Your task to perform on an android device: change the clock display to show seconds Image 0: 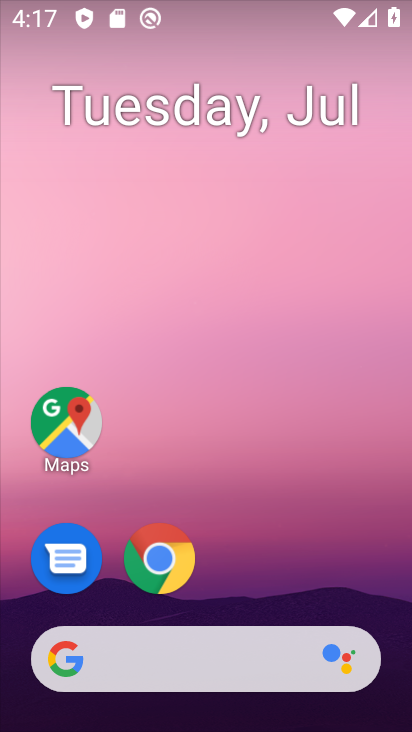
Step 0: drag from (261, 429) to (273, 251)
Your task to perform on an android device: change the clock display to show seconds Image 1: 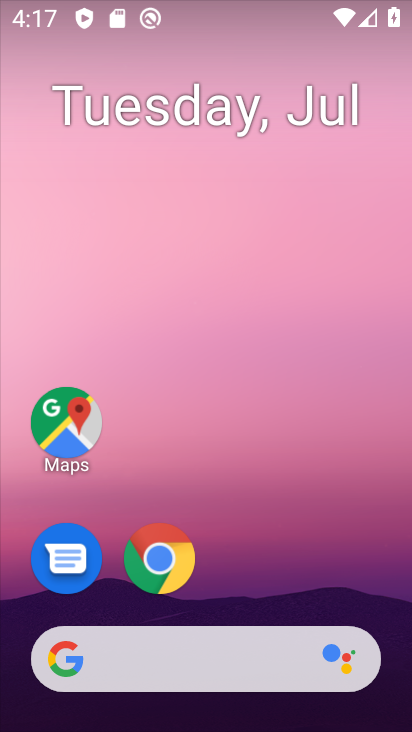
Step 1: drag from (230, 610) to (231, 281)
Your task to perform on an android device: change the clock display to show seconds Image 2: 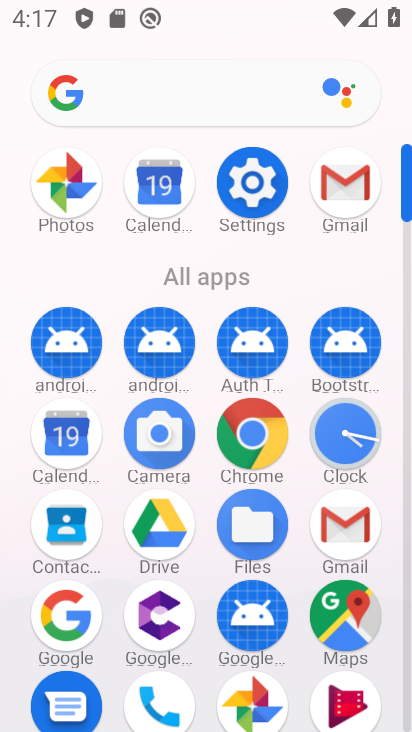
Step 2: click (331, 447)
Your task to perform on an android device: change the clock display to show seconds Image 3: 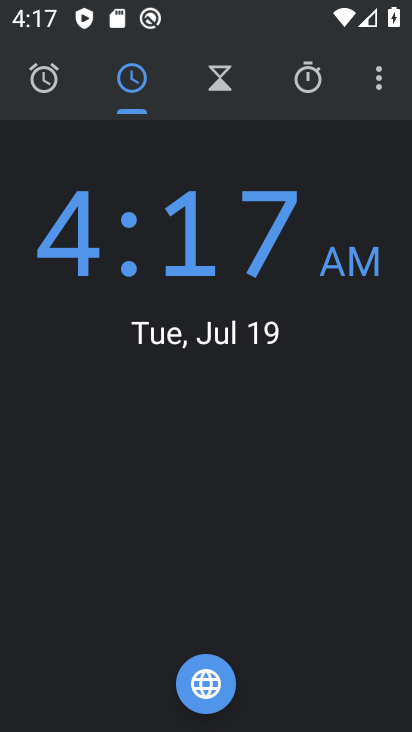
Step 3: click (380, 100)
Your task to perform on an android device: change the clock display to show seconds Image 4: 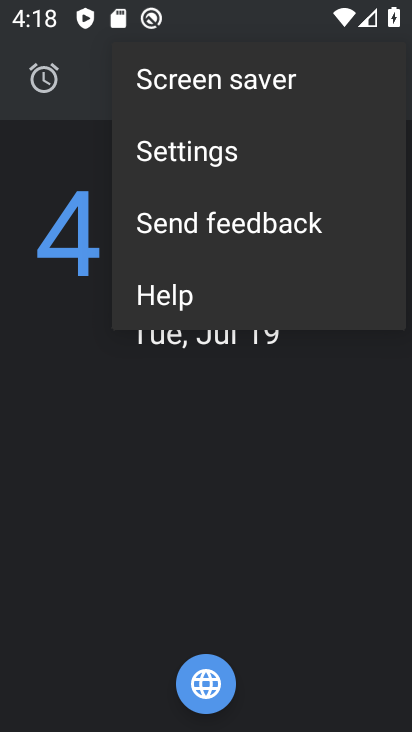
Step 4: click (212, 165)
Your task to perform on an android device: change the clock display to show seconds Image 5: 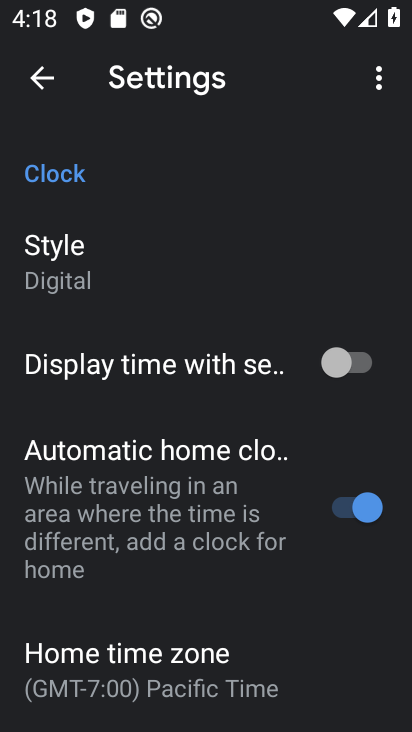
Step 5: click (199, 365)
Your task to perform on an android device: change the clock display to show seconds Image 6: 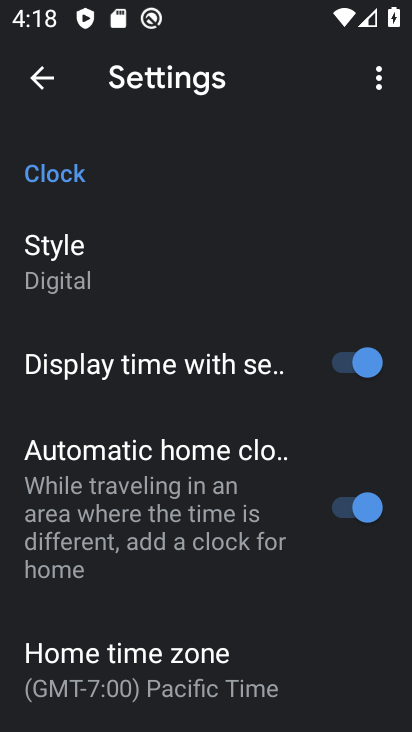
Step 6: task complete